Your task to perform on an android device: Go to wifi settings Image 0: 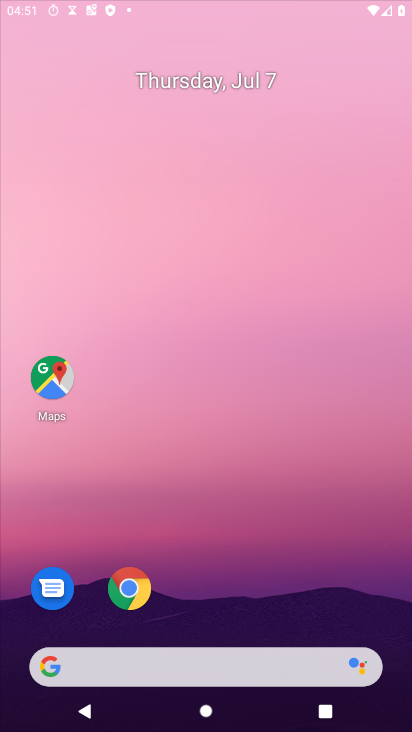
Step 0: press home button
Your task to perform on an android device: Go to wifi settings Image 1: 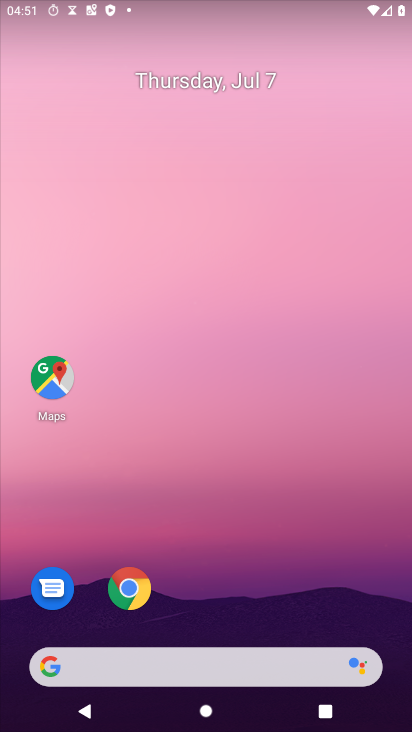
Step 1: drag from (285, 624) to (228, 130)
Your task to perform on an android device: Go to wifi settings Image 2: 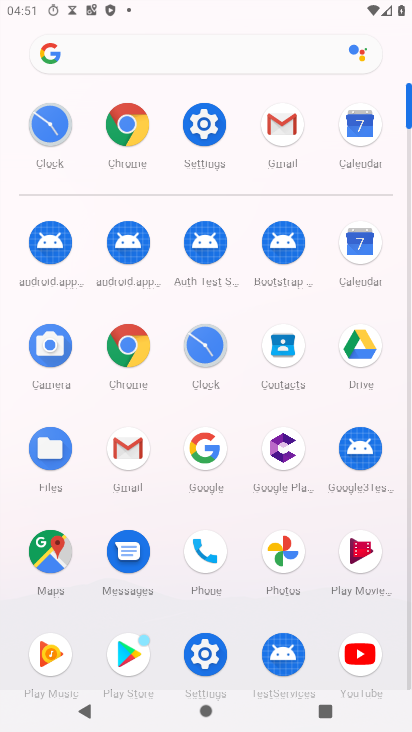
Step 2: click (211, 126)
Your task to perform on an android device: Go to wifi settings Image 3: 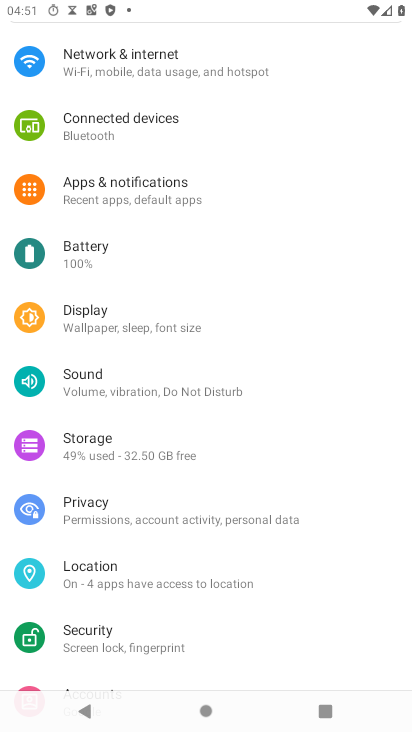
Step 3: drag from (222, 121) to (185, 493)
Your task to perform on an android device: Go to wifi settings Image 4: 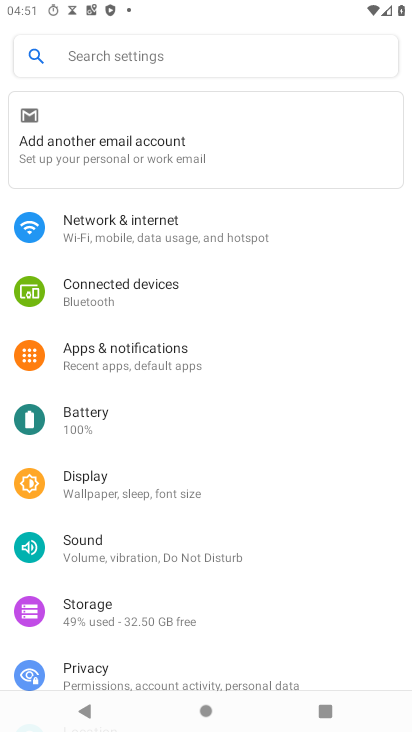
Step 4: click (128, 233)
Your task to perform on an android device: Go to wifi settings Image 5: 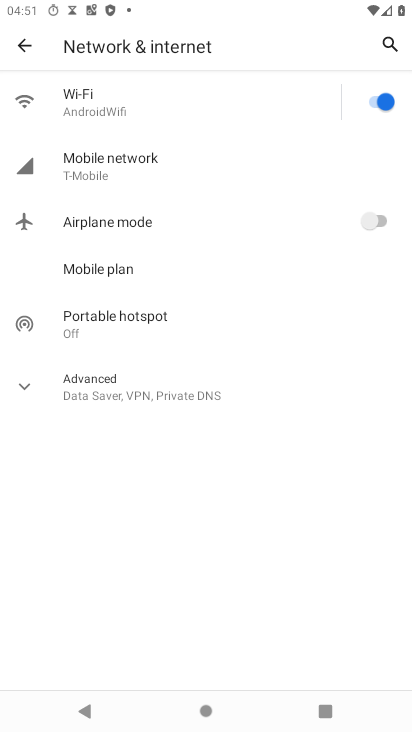
Step 5: click (75, 98)
Your task to perform on an android device: Go to wifi settings Image 6: 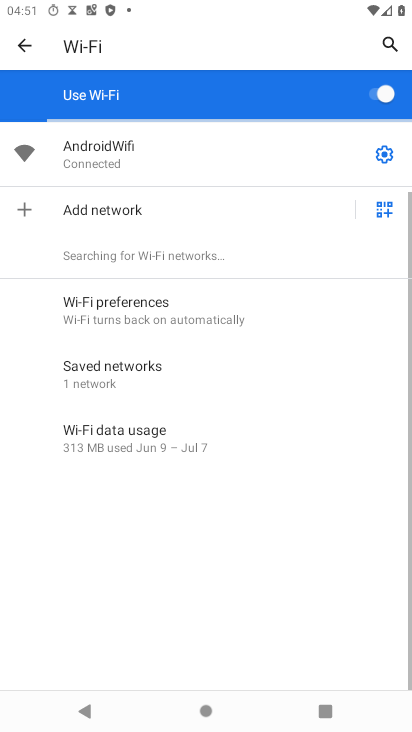
Step 6: task complete